Your task to perform on an android device: turn off notifications in google photos Image 0: 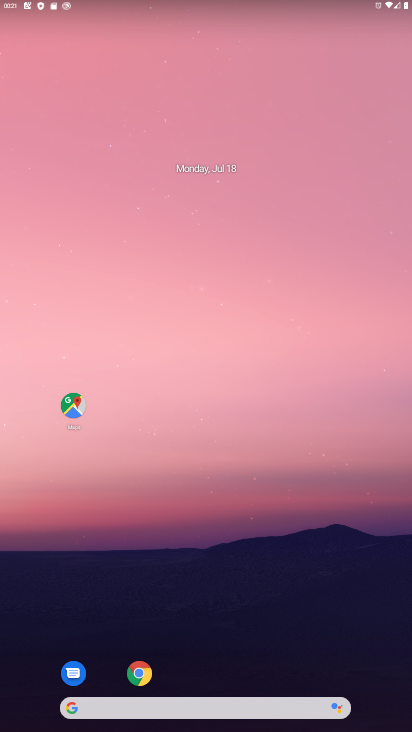
Step 0: drag from (232, 654) to (190, 38)
Your task to perform on an android device: turn off notifications in google photos Image 1: 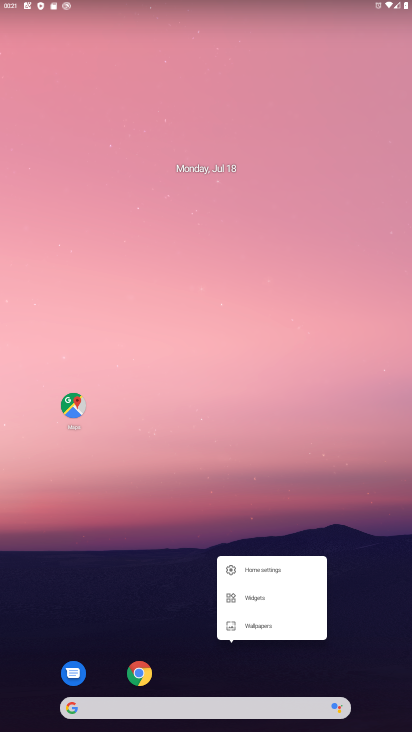
Step 1: click (156, 309)
Your task to perform on an android device: turn off notifications in google photos Image 2: 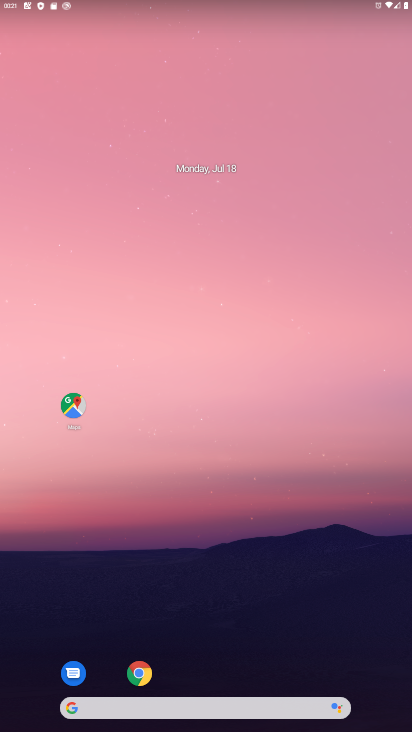
Step 2: drag from (247, 669) to (207, 66)
Your task to perform on an android device: turn off notifications in google photos Image 3: 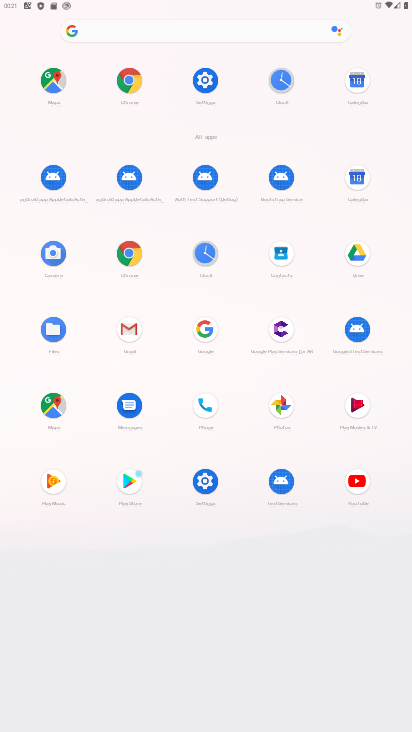
Step 3: click (286, 402)
Your task to perform on an android device: turn off notifications in google photos Image 4: 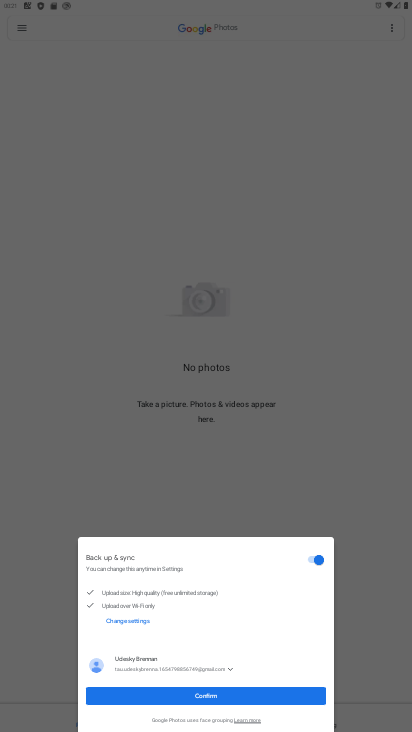
Step 4: click (234, 689)
Your task to perform on an android device: turn off notifications in google photos Image 5: 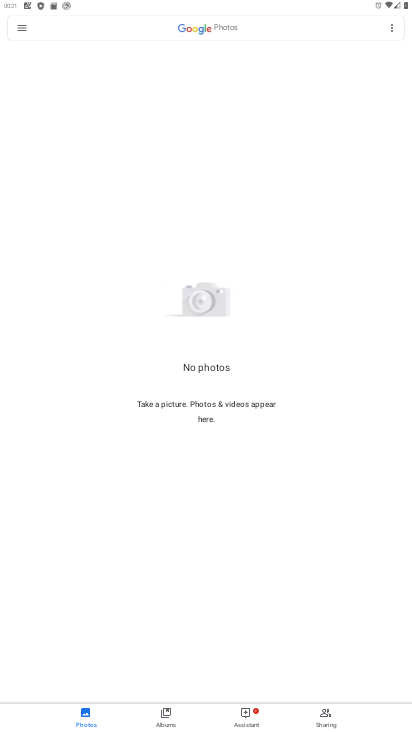
Step 5: task complete